Your task to perform on an android device: turn on airplane mode Image 0: 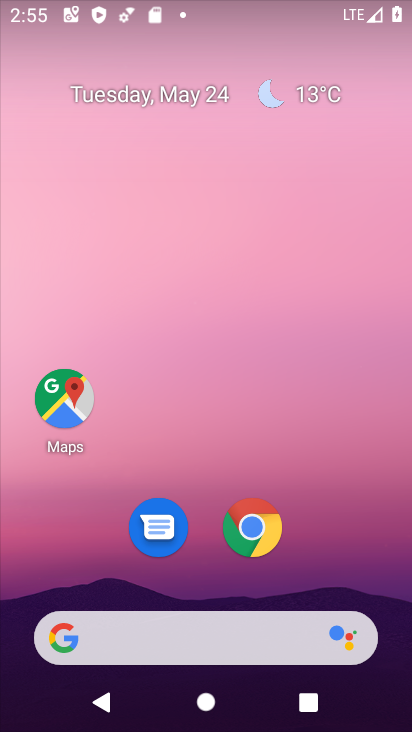
Step 0: drag from (309, 554) to (392, 53)
Your task to perform on an android device: turn on airplane mode Image 1: 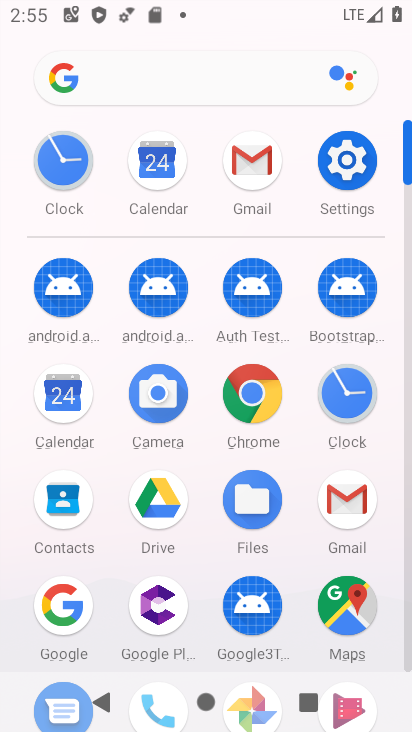
Step 1: click (351, 165)
Your task to perform on an android device: turn on airplane mode Image 2: 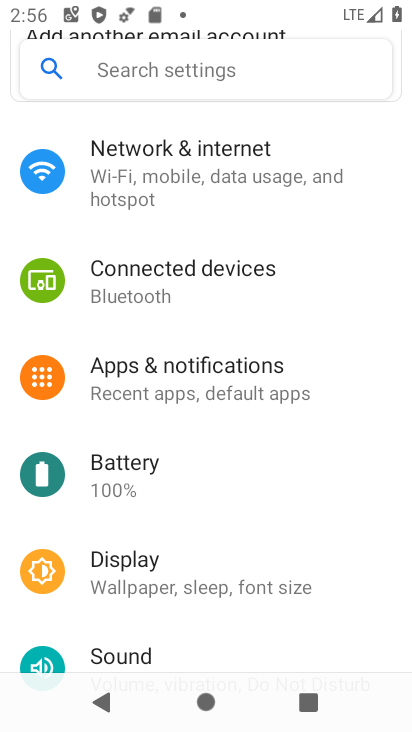
Step 2: click (178, 197)
Your task to perform on an android device: turn on airplane mode Image 3: 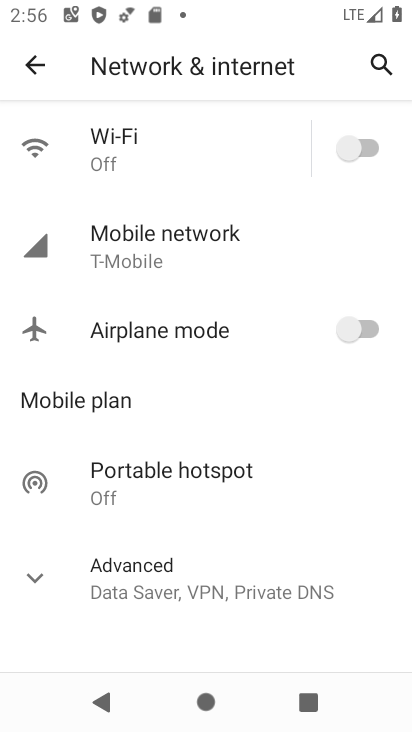
Step 3: click (310, 335)
Your task to perform on an android device: turn on airplane mode Image 4: 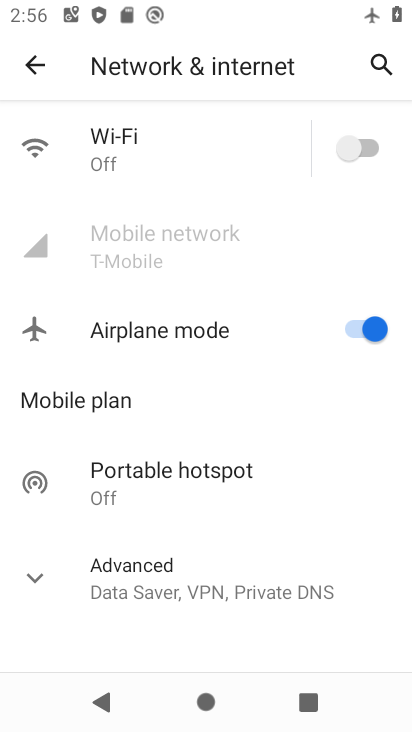
Step 4: task complete